Your task to perform on an android device: Open sound settings Image 0: 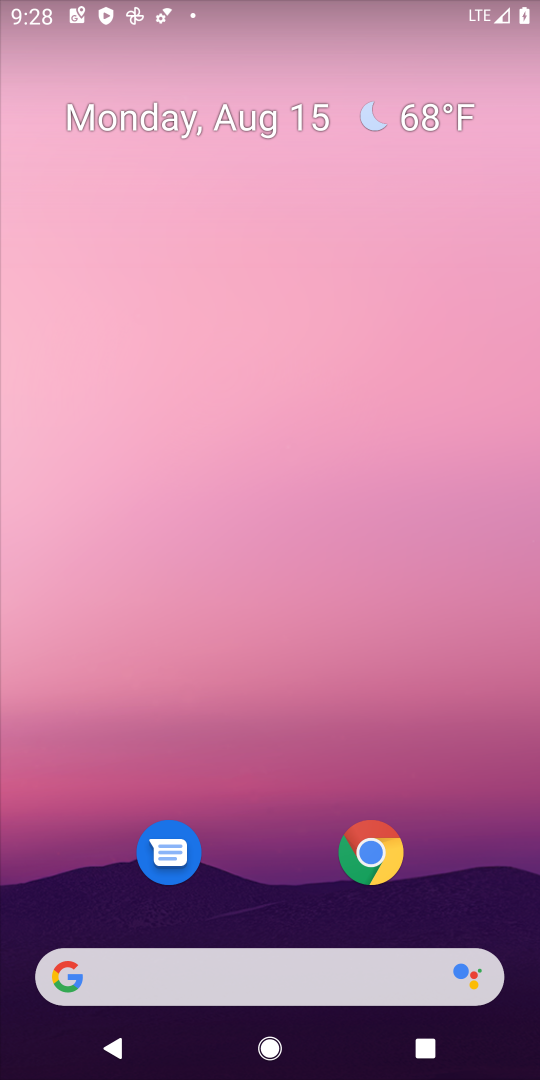
Step 0: drag from (229, 887) to (270, 148)
Your task to perform on an android device: Open sound settings Image 1: 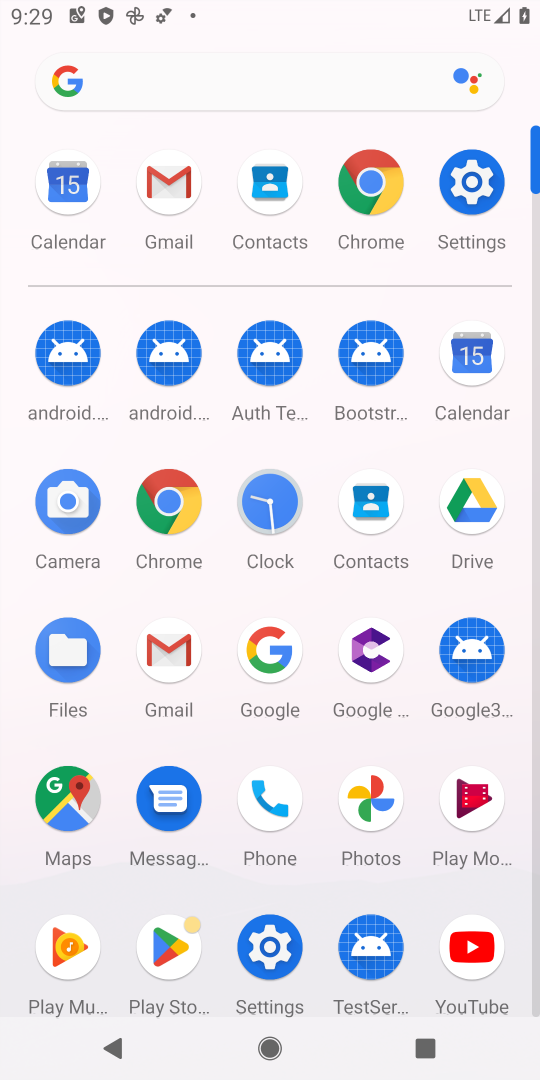
Step 1: click (470, 181)
Your task to perform on an android device: Open sound settings Image 2: 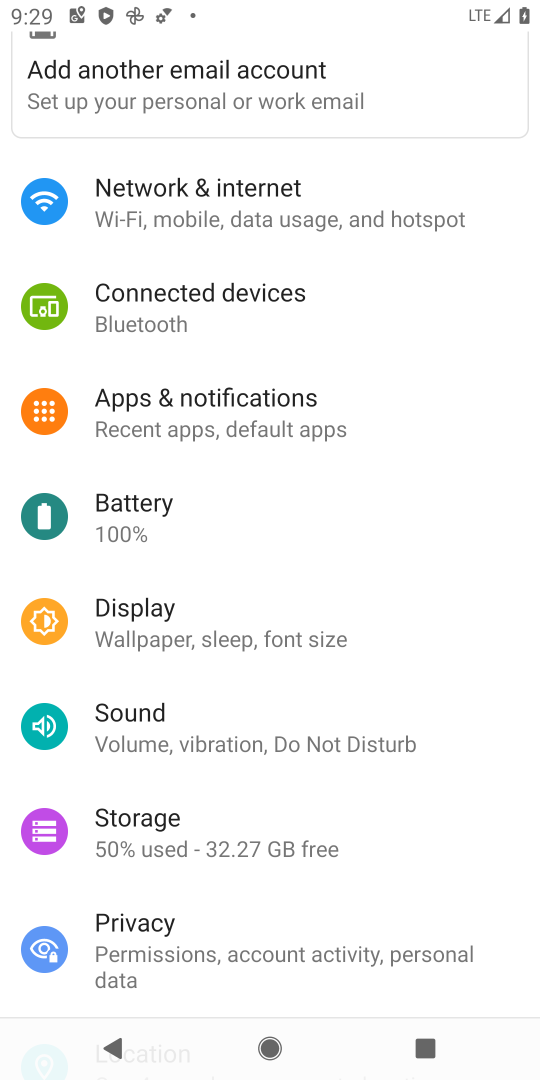
Step 2: click (138, 721)
Your task to perform on an android device: Open sound settings Image 3: 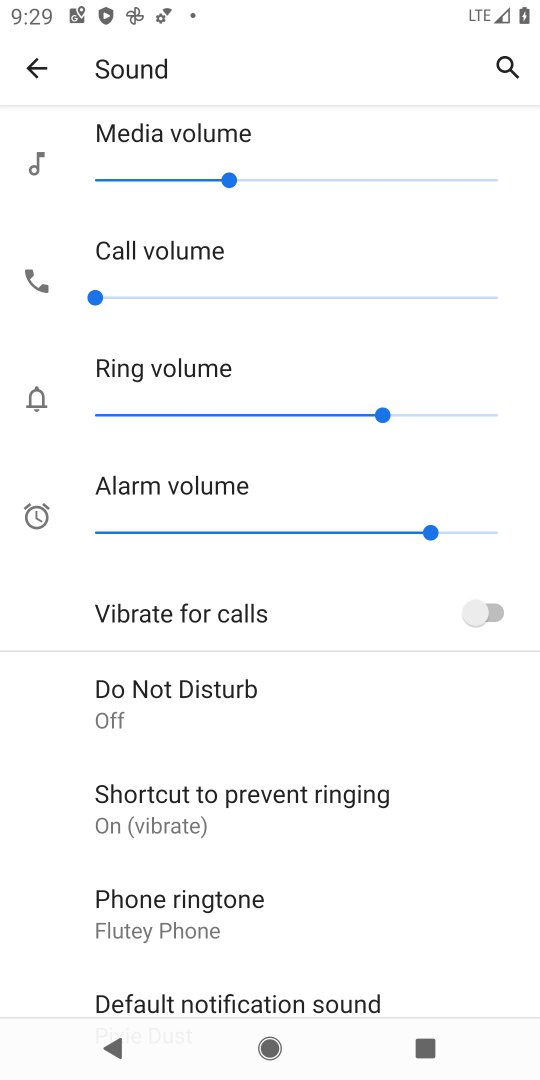
Step 3: task complete